Your task to perform on an android device: Go to Maps Image 0: 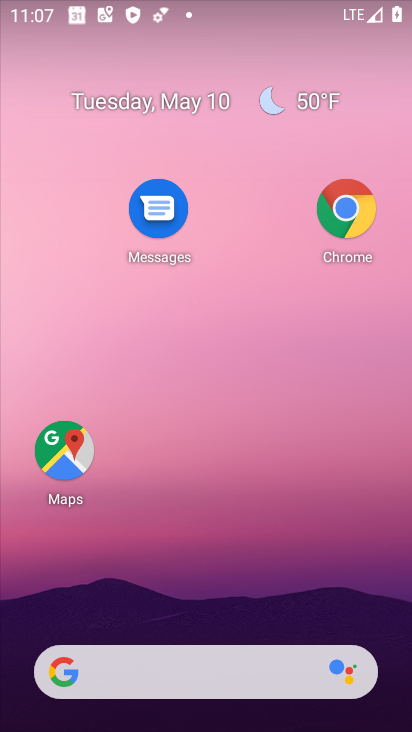
Step 0: click (77, 462)
Your task to perform on an android device: Go to Maps Image 1: 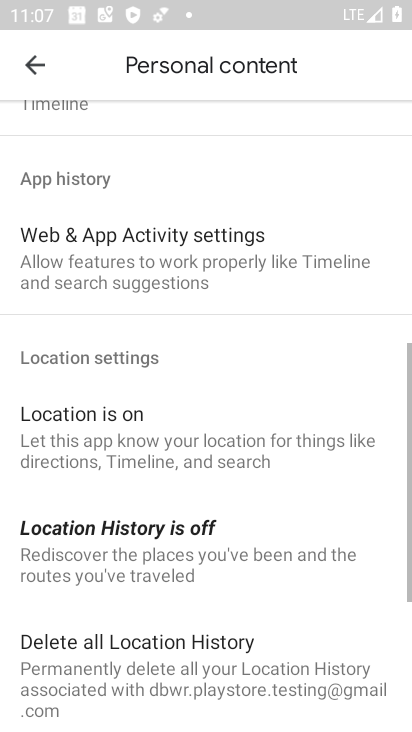
Step 1: click (37, 73)
Your task to perform on an android device: Go to Maps Image 2: 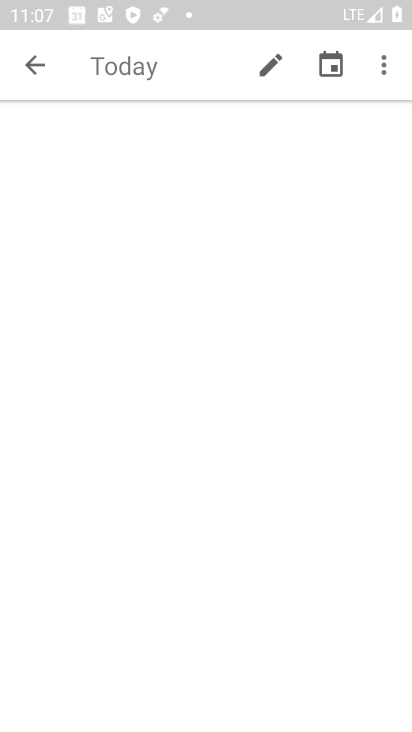
Step 2: click (36, 73)
Your task to perform on an android device: Go to Maps Image 3: 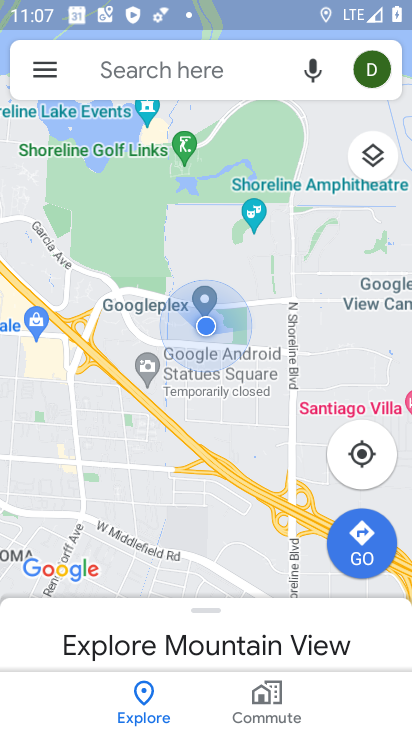
Step 3: task complete